Your task to perform on an android device: Go to wifi settings Image 0: 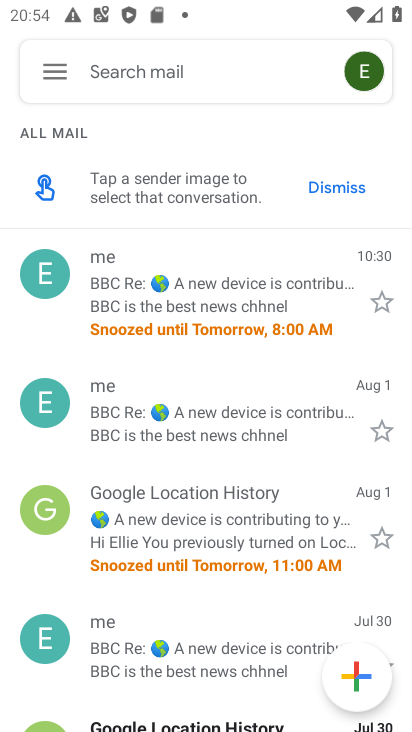
Step 0: press home button
Your task to perform on an android device: Go to wifi settings Image 1: 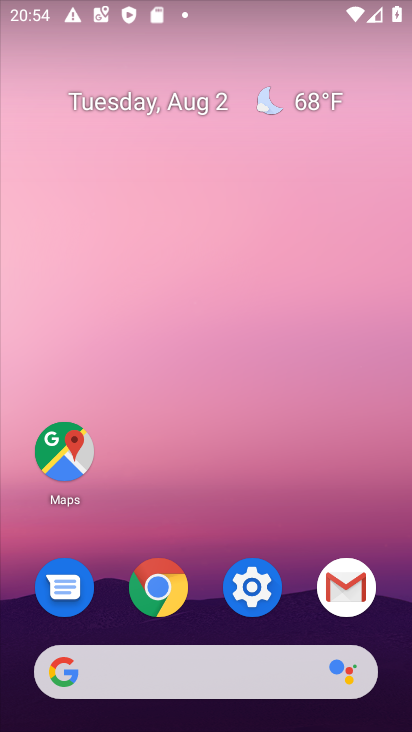
Step 1: click (256, 575)
Your task to perform on an android device: Go to wifi settings Image 2: 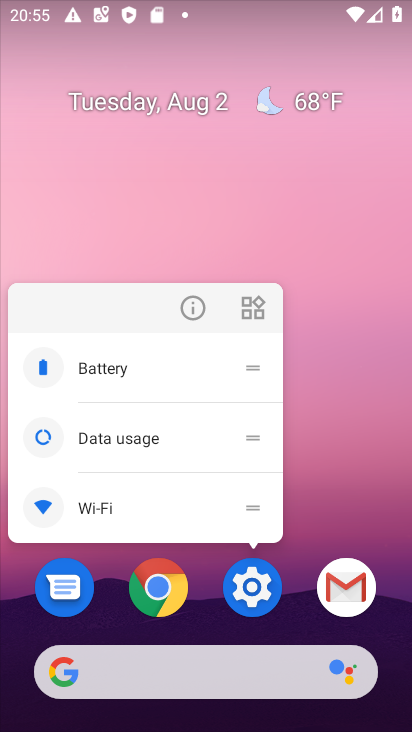
Step 2: click (242, 582)
Your task to perform on an android device: Go to wifi settings Image 3: 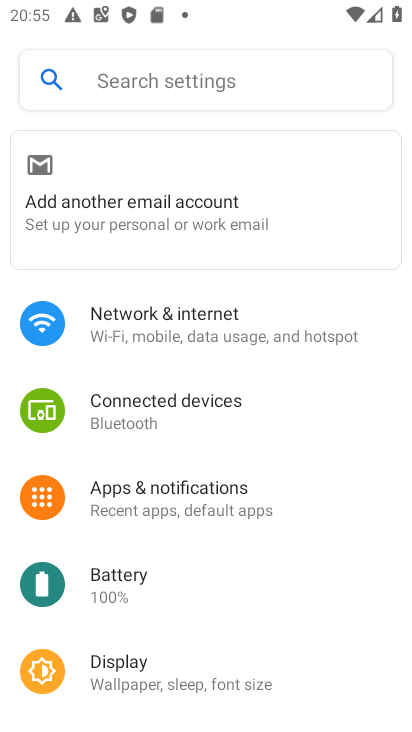
Step 3: click (183, 332)
Your task to perform on an android device: Go to wifi settings Image 4: 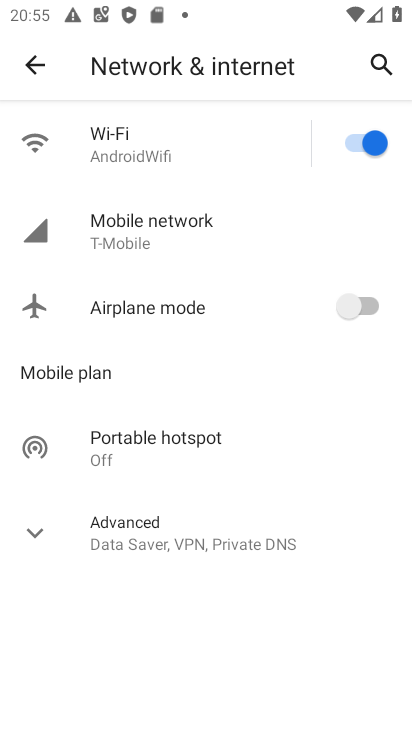
Step 4: click (117, 145)
Your task to perform on an android device: Go to wifi settings Image 5: 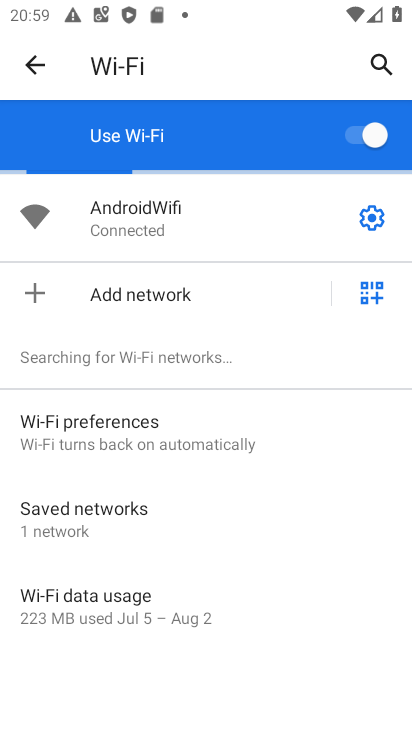
Step 5: task complete